Your task to perform on an android device: Open calendar and show me the fourth week of next month Image 0: 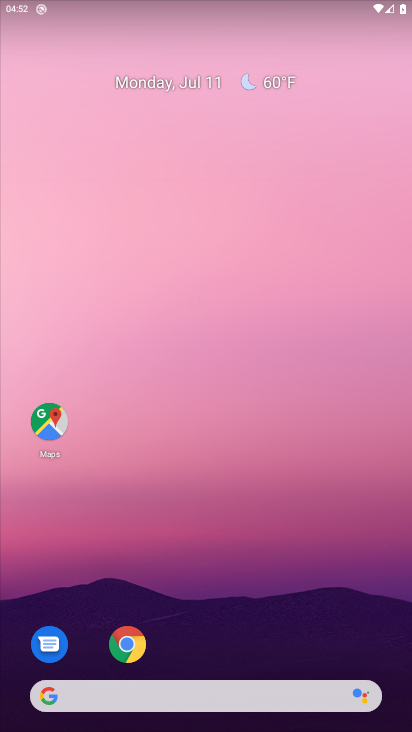
Step 0: drag from (202, 593) to (216, 108)
Your task to perform on an android device: Open calendar and show me the fourth week of next month Image 1: 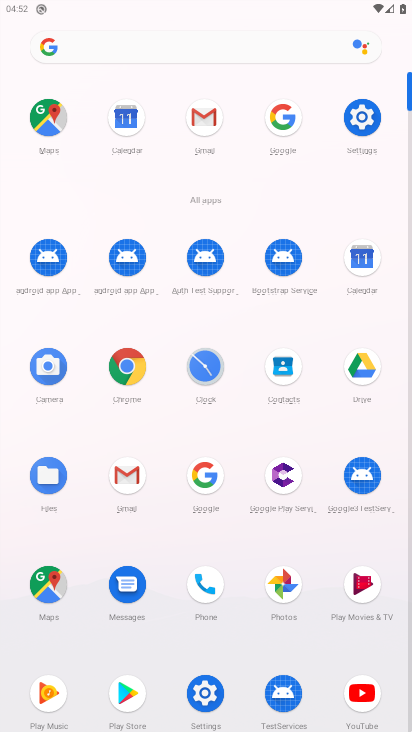
Step 1: click (357, 265)
Your task to perform on an android device: Open calendar and show me the fourth week of next month Image 2: 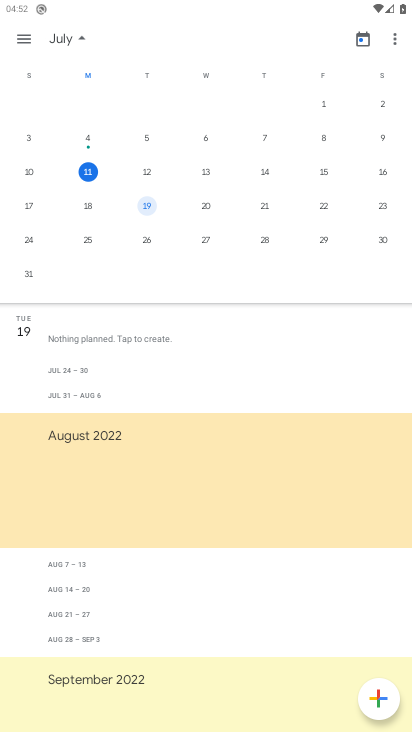
Step 2: drag from (373, 229) to (0, 211)
Your task to perform on an android device: Open calendar and show me the fourth week of next month Image 3: 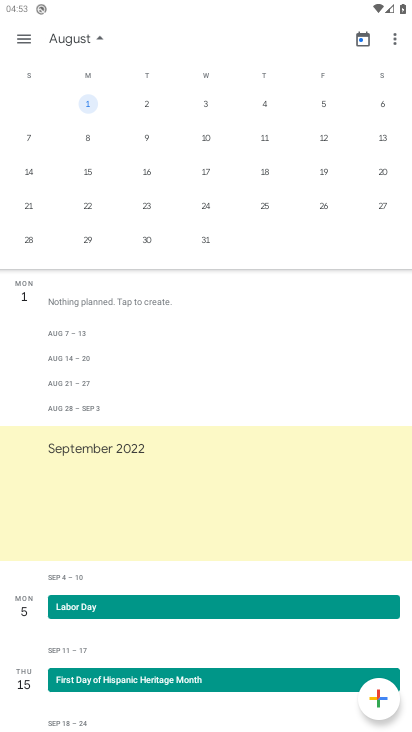
Step 3: click (28, 206)
Your task to perform on an android device: Open calendar and show me the fourth week of next month Image 4: 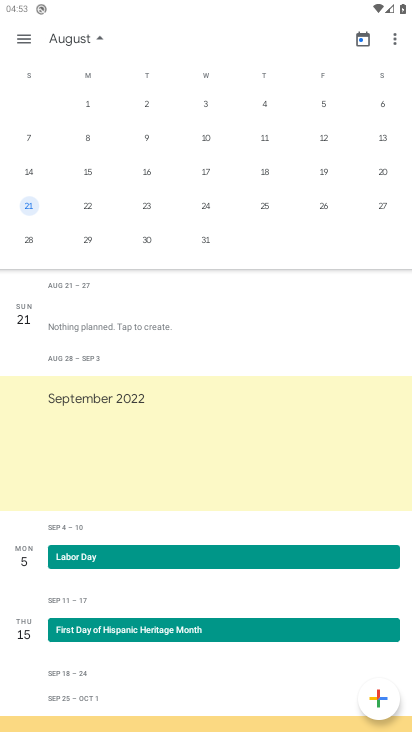
Step 4: task complete